Your task to perform on an android device: change keyboard looks Image 0: 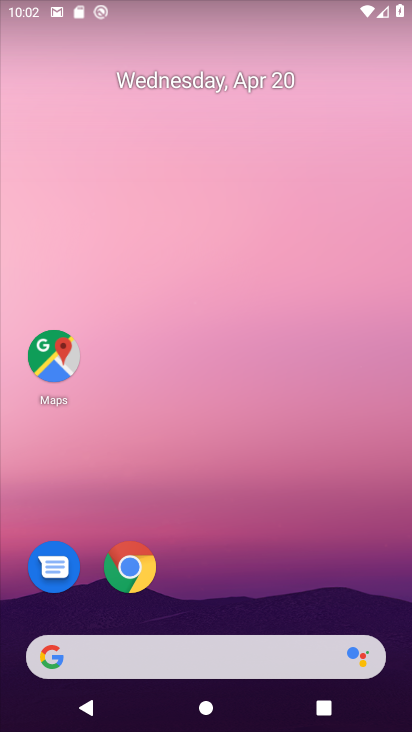
Step 0: drag from (242, 514) to (284, 40)
Your task to perform on an android device: change keyboard looks Image 1: 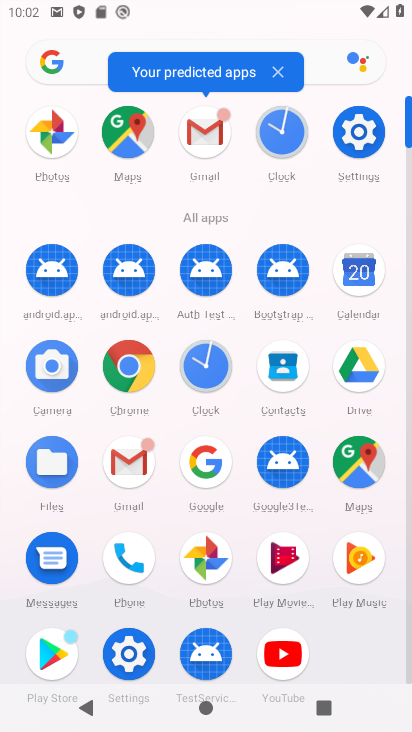
Step 1: click (359, 133)
Your task to perform on an android device: change keyboard looks Image 2: 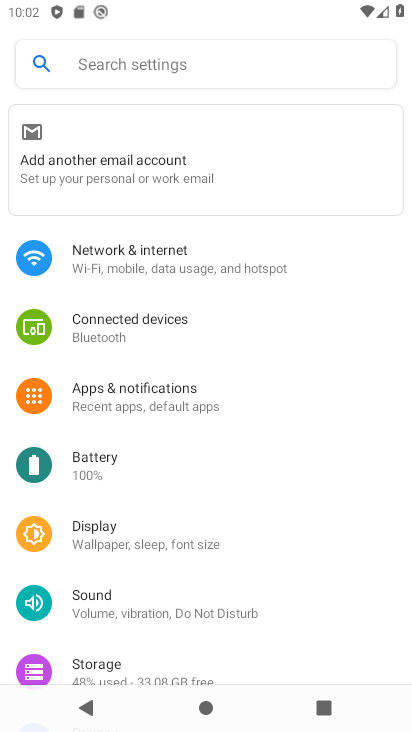
Step 2: drag from (161, 509) to (194, 363)
Your task to perform on an android device: change keyboard looks Image 3: 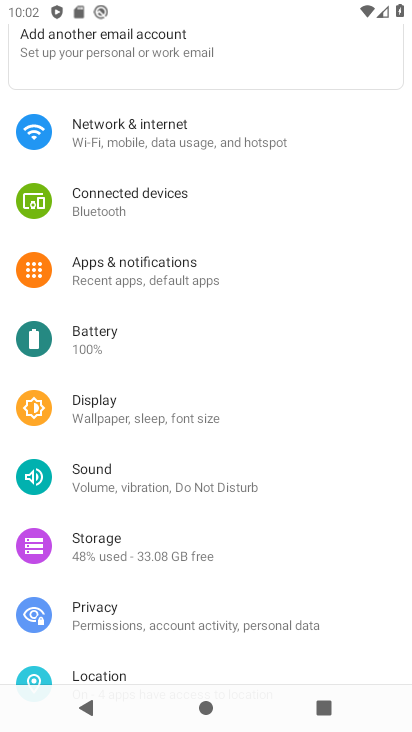
Step 3: drag from (171, 577) to (214, 408)
Your task to perform on an android device: change keyboard looks Image 4: 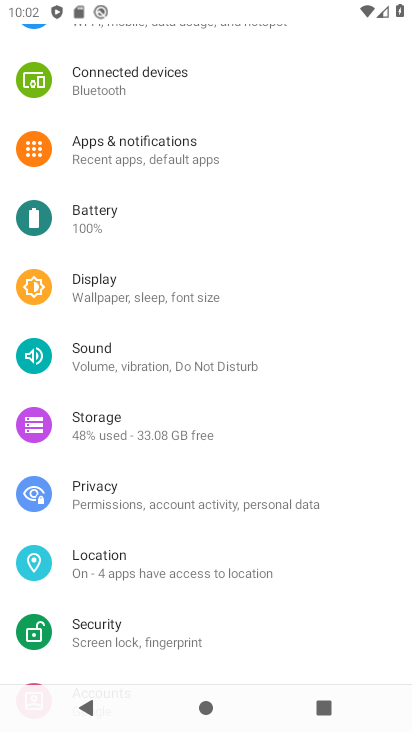
Step 4: drag from (174, 539) to (214, 370)
Your task to perform on an android device: change keyboard looks Image 5: 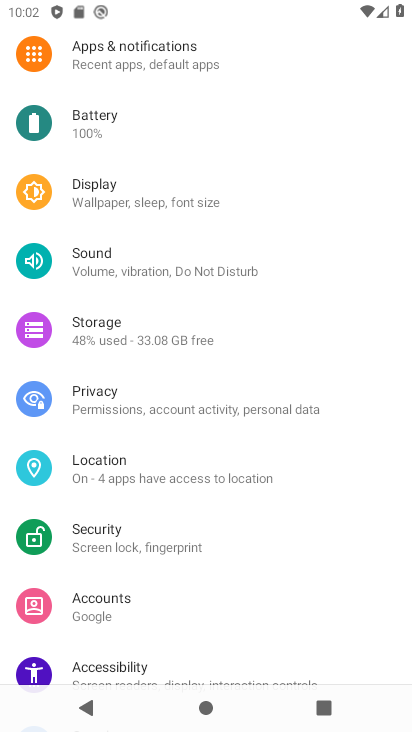
Step 5: drag from (169, 608) to (195, 491)
Your task to perform on an android device: change keyboard looks Image 6: 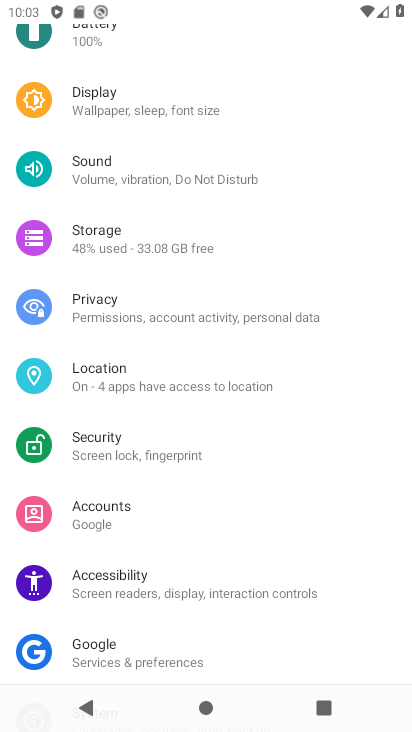
Step 6: drag from (194, 520) to (241, 385)
Your task to perform on an android device: change keyboard looks Image 7: 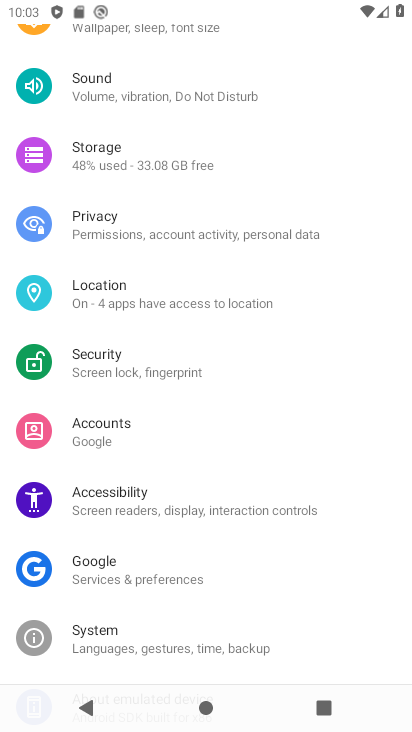
Step 7: click (189, 649)
Your task to perform on an android device: change keyboard looks Image 8: 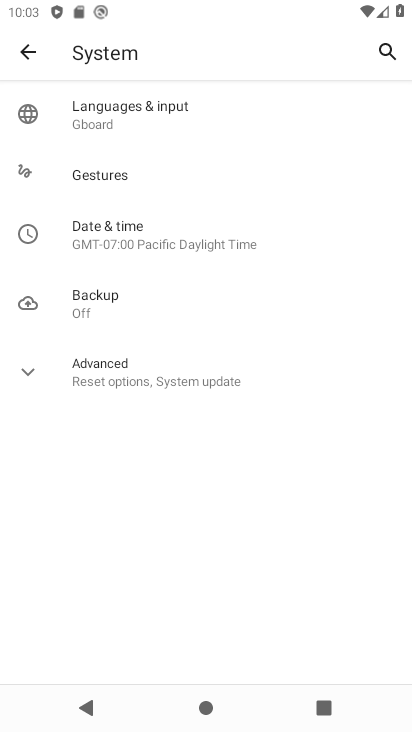
Step 8: click (116, 112)
Your task to perform on an android device: change keyboard looks Image 9: 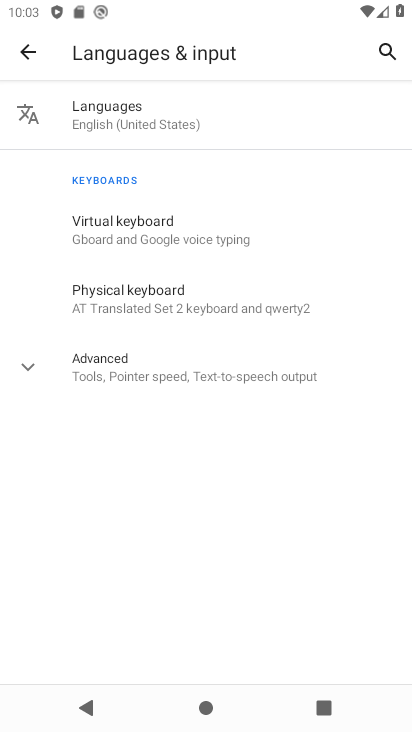
Step 9: click (132, 234)
Your task to perform on an android device: change keyboard looks Image 10: 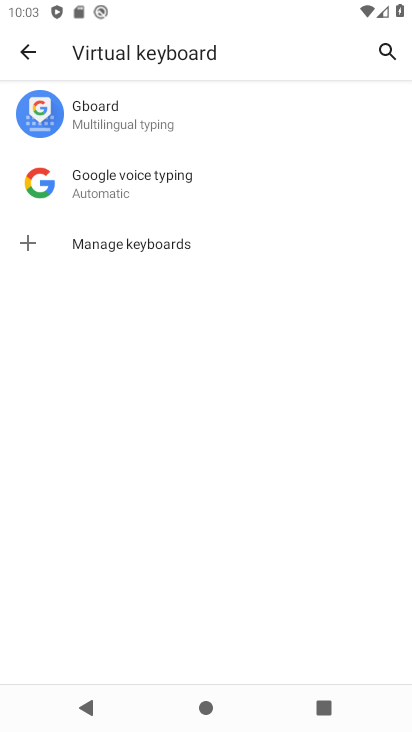
Step 10: click (120, 114)
Your task to perform on an android device: change keyboard looks Image 11: 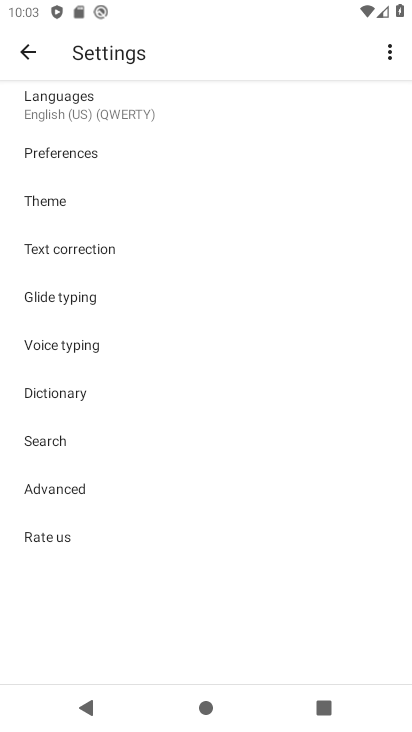
Step 11: click (54, 197)
Your task to perform on an android device: change keyboard looks Image 12: 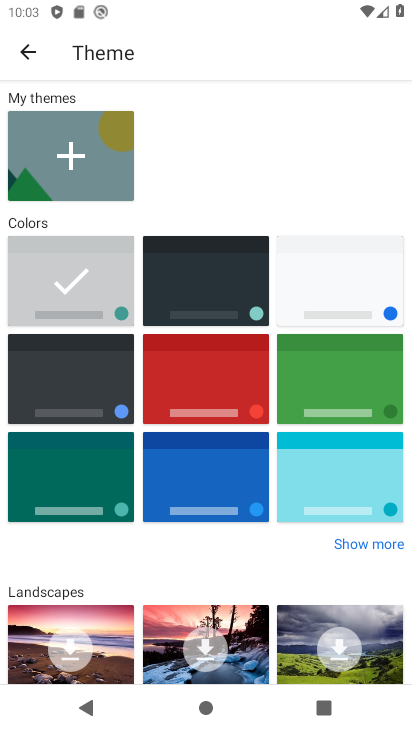
Step 12: click (209, 411)
Your task to perform on an android device: change keyboard looks Image 13: 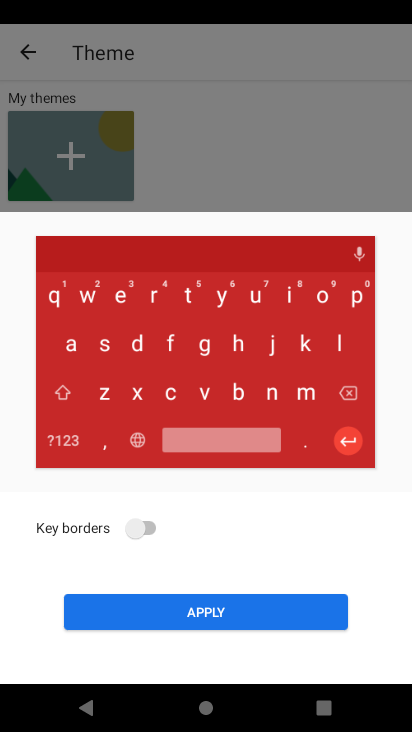
Step 13: click (146, 531)
Your task to perform on an android device: change keyboard looks Image 14: 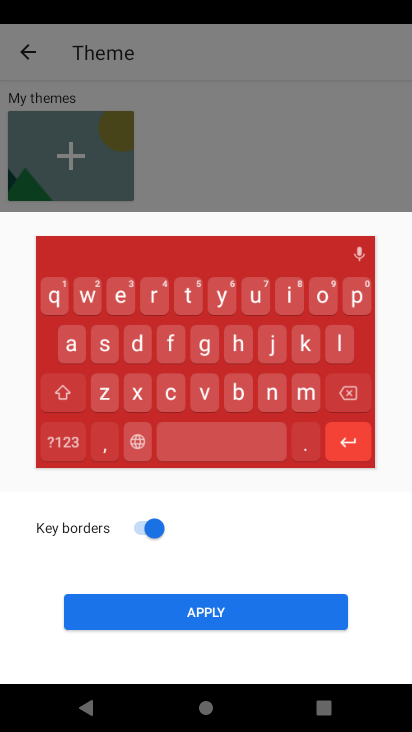
Step 14: click (211, 616)
Your task to perform on an android device: change keyboard looks Image 15: 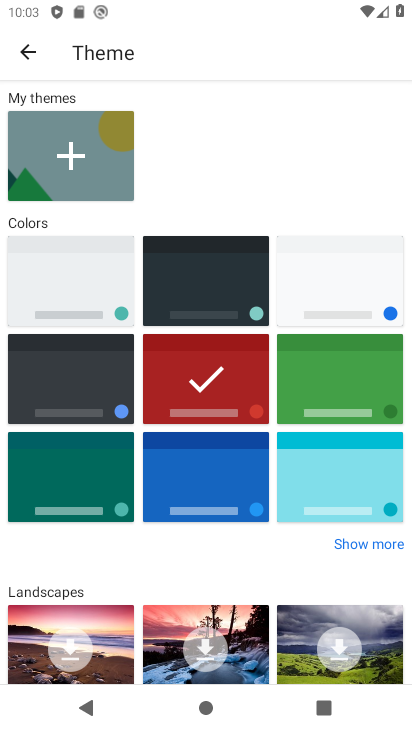
Step 15: task complete